Your task to perform on an android device: Search for asus rog on ebay.com, select the first entry, add it to the cart, then select checkout. Image 0: 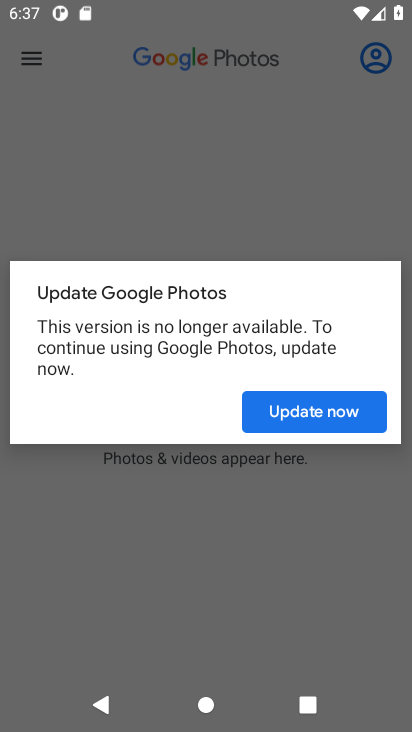
Step 0: press home button
Your task to perform on an android device: Search for asus rog on ebay.com, select the first entry, add it to the cart, then select checkout. Image 1: 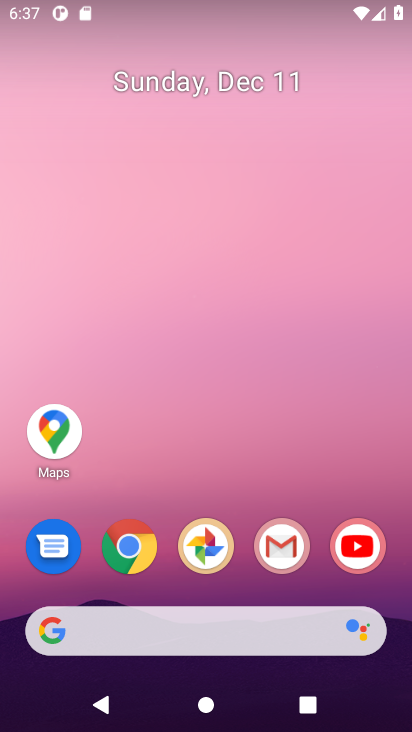
Step 1: drag from (227, 619) to (82, 40)
Your task to perform on an android device: Search for asus rog on ebay.com, select the first entry, add it to the cart, then select checkout. Image 2: 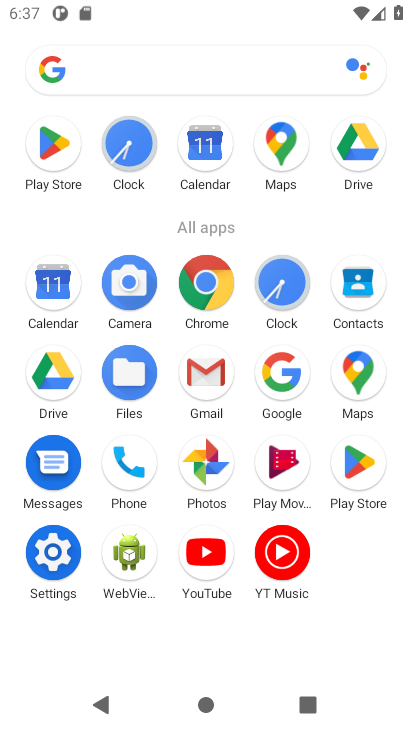
Step 2: click (282, 364)
Your task to perform on an android device: Search for asus rog on ebay.com, select the first entry, add it to the cart, then select checkout. Image 3: 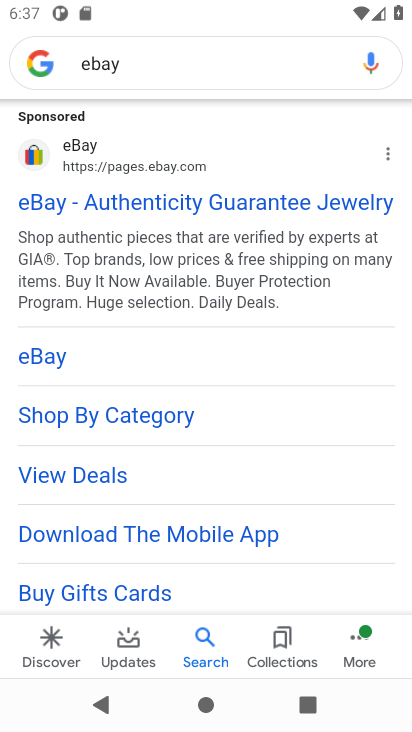
Step 3: click (130, 201)
Your task to perform on an android device: Search for asus rog on ebay.com, select the first entry, add it to the cart, then select checkout. Image 4: 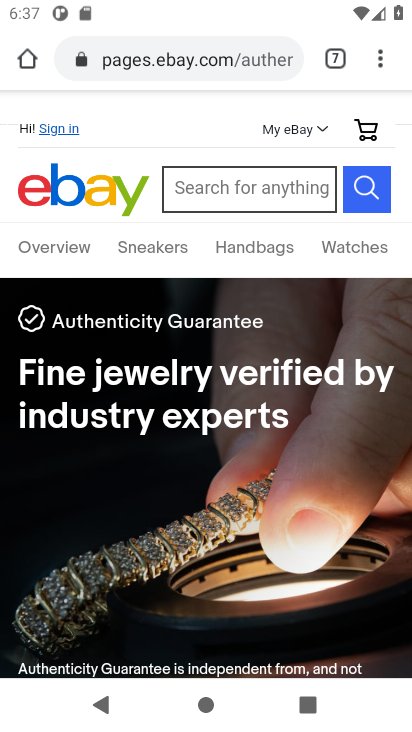
Step 4: click (205, 176)
Your task to perform on an android device: Search for asus rog on ebay.com, select the first entry, add it to the cart, then select checkout. Image 5: 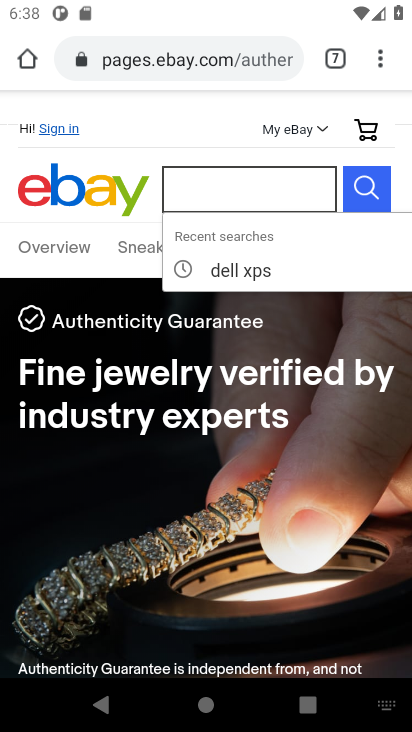
Step 5: type "asus rog"
Your task to perform on an android device: Search for asus rog on ebay.com, select the first entry, add it to the cart, then select checkout. Image 6: 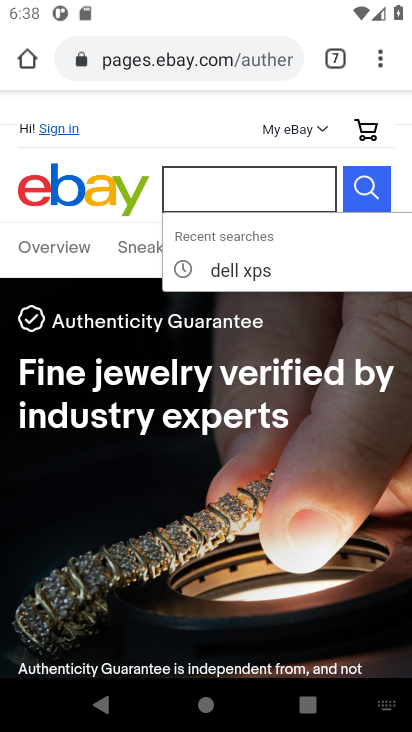
Step 6: click (350, 174)
Your task to perform on an android device: Search for asus rog on ebay.com, select the first entry, add it to the cart, then select checkout. Image 7: 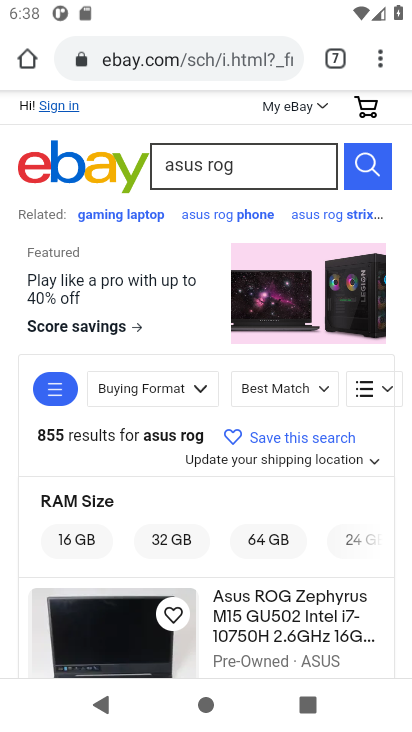
Step 7: drag from (250, 591) to (256, 214)
Your task to perform on an android device: Search for asus rog on ebay.com, select the first entry, add it to the cart, then select checkout. Image 8: 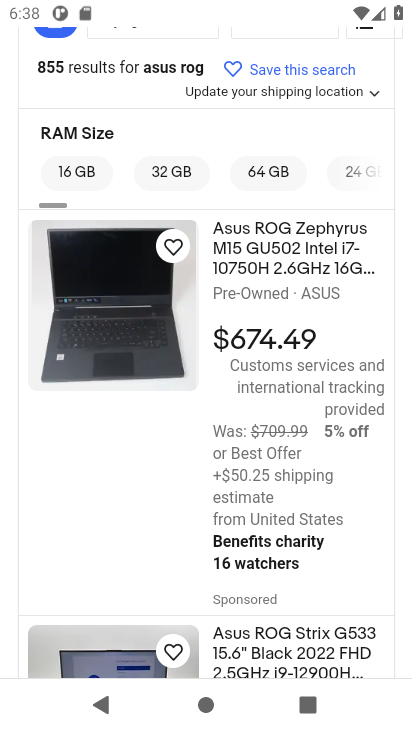
Step 8: click (301, 247)
Your task to perform on an android device: Search for asus rog on ebay.com, select the first entry, add it to the cart, then select checkout. Image 9: 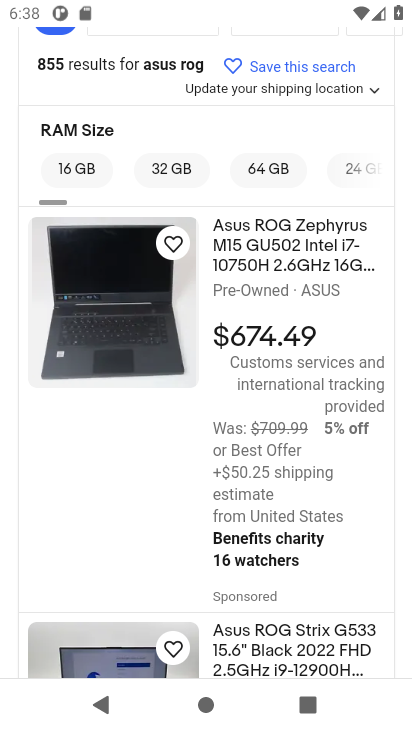
Step 9: click (249, 264)
Your task to perform on an android device: Search for asus rog on ebay.com, select the first entry, add it to the cart, then select checkout. Image 10: 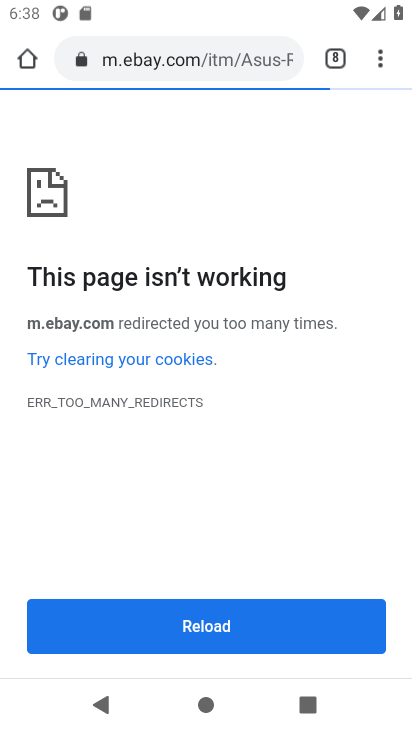
Step 10: task complete